Your task to perform on an android device: Open Google Chrome and click the shortcut for Amazon.com Image 0: 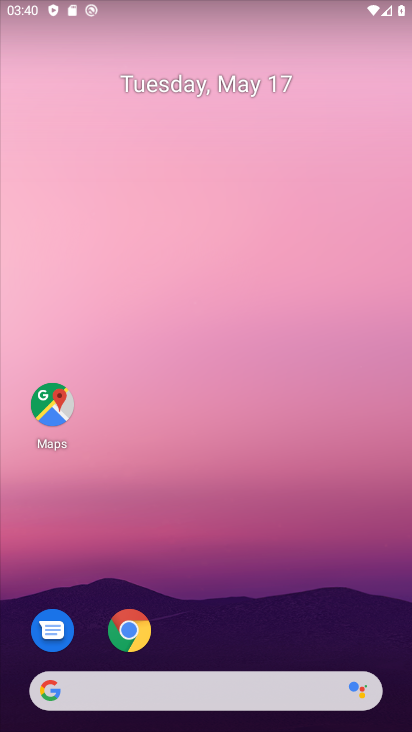
Step 0: click (138, 644)
Your task to perform on an android device: Open Google Chrome and click the shortcut for Amazon.com Image 1: 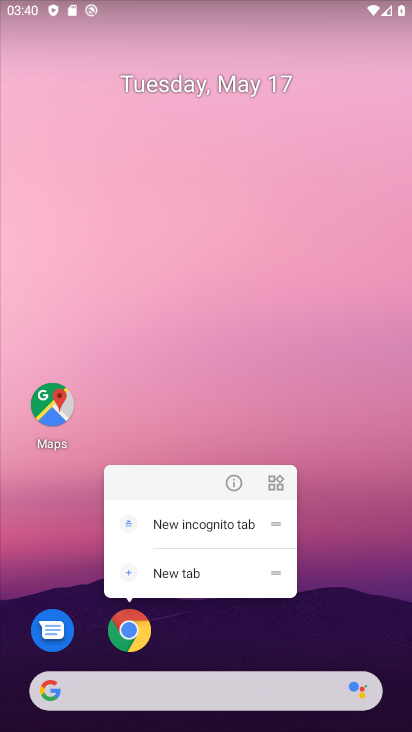
Step 1: click (138, 643)
Your task to perform on an android device: Open Google Chrome and click the shortcut for Amazon.com Image 2: 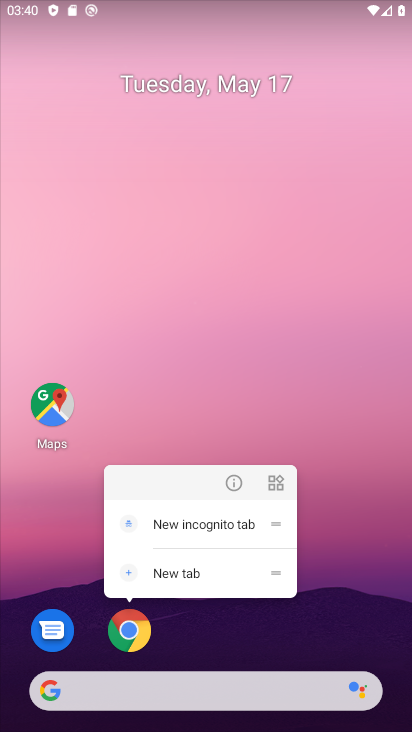
Step 2: click (134, 633)
Your task to perform on an android device: Open Google Chrome and click the shortcut for Amazon.com Image 3: 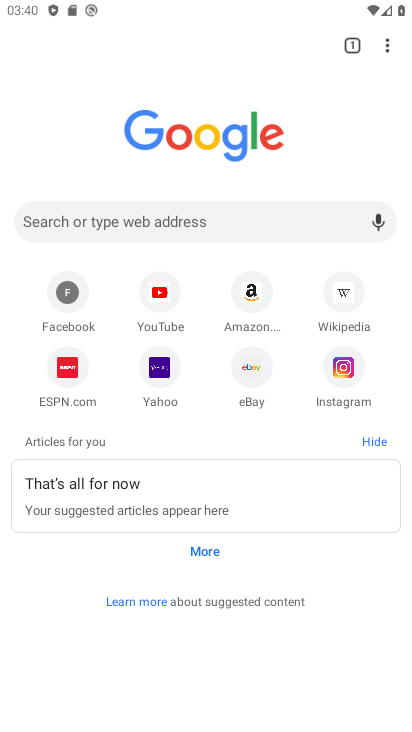
Step 3: click (245, 312)
Your task to perform on an android device: Open Google Chrome and click the shortcut for Amazon.com Image 4: 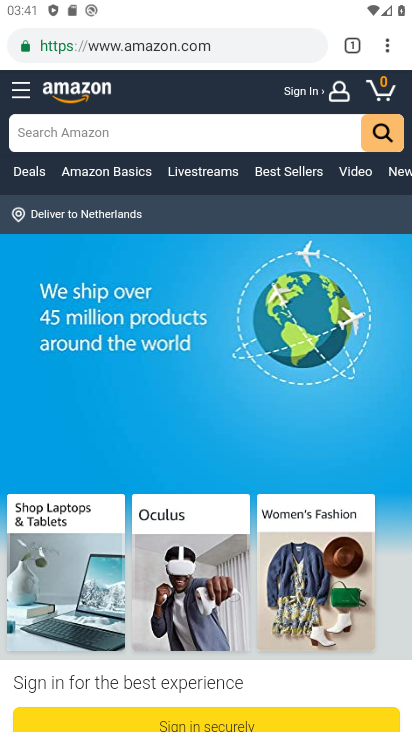
Step 4: task complete